Your task to perform on an android device: Open accessibility settings Image 0: 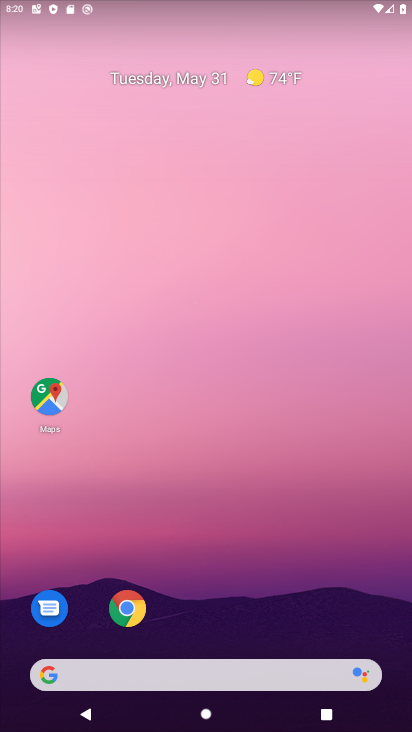
Step 0: drag from (231, 636) to (225, 164)
Your task to perform on an android device: Open accessibility settings Image 1: 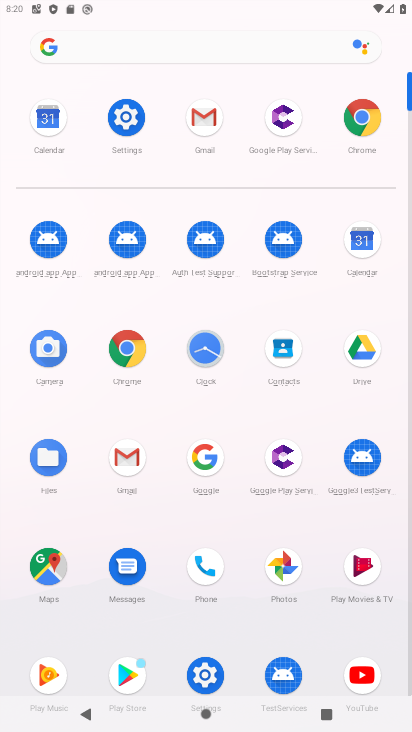
Step 1: click (121, 112)
Your task to perform on an android device: Open accessibility settings Image 2: 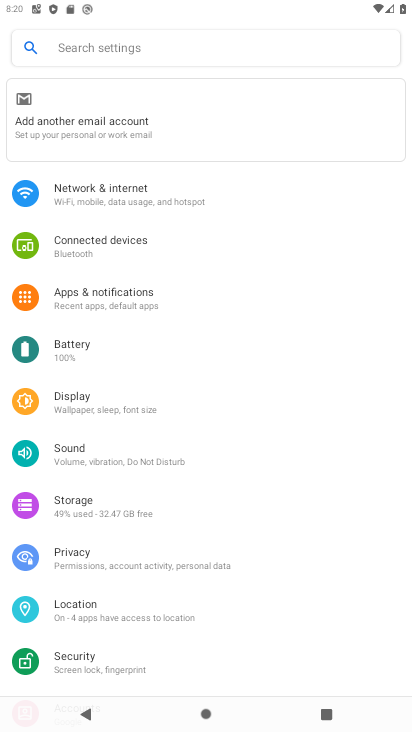
Step 2: drag from (111, 604) to (32, 176)
Your task to perform on an android device: Open accessibility settings Image 3: 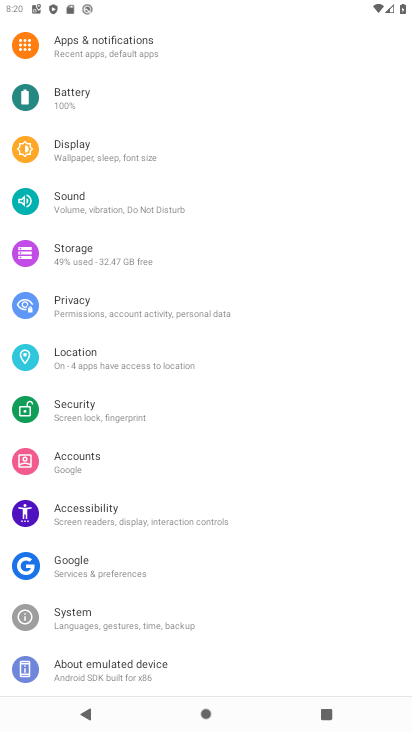
Step 3: click (112, 523)
Your task to perform on an android device: Open accessibility settings Image 4: 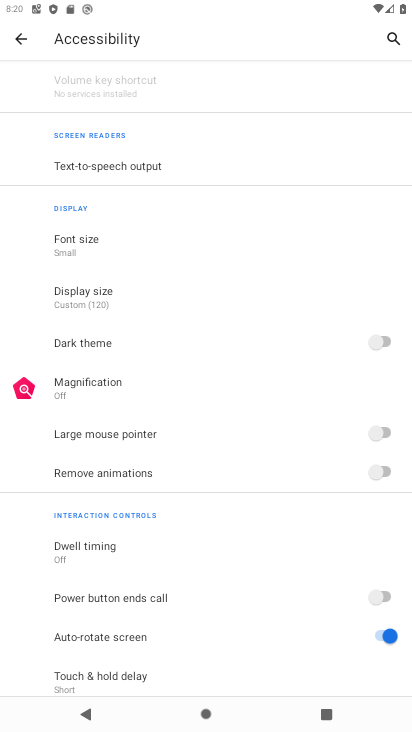
Step 4: task complete